Your task to perform on an android device: Find coffee shops on Maps Image 0: 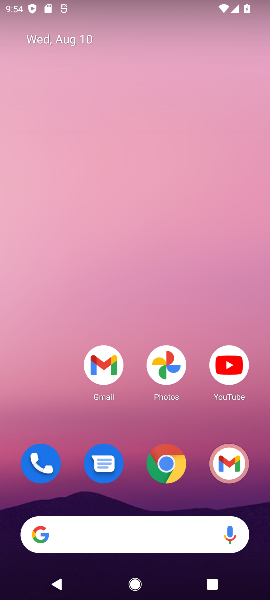
Step 0: drag from (11, 561) to (166, 60)
Your task to perform on an android device: Find coffee shops on Maps Image 1: 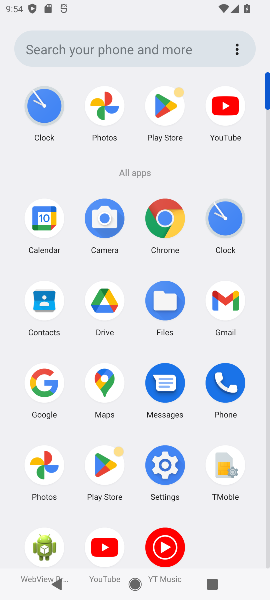
Step 1: click (113, 390)
Your task to perform on an android device: Find coffee shops on Maps Image 2: 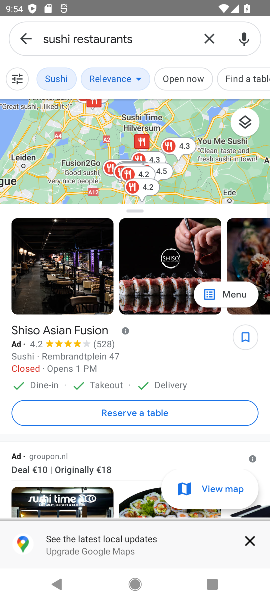
Step 2: click (25, 43)
Your task to perform on an android device: Find coffee shops on Maps Image 3: 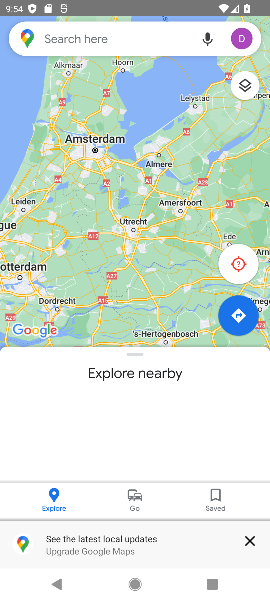
Step 3: click (72, 36)
Your task to perform on an android device: Find coffee shops on Maps Image 4: 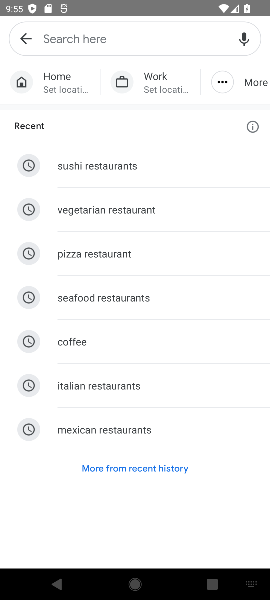
Step 4: type "coffee shops"
Your task to perform on an android device: Find coffee shops on Maps Image 5: 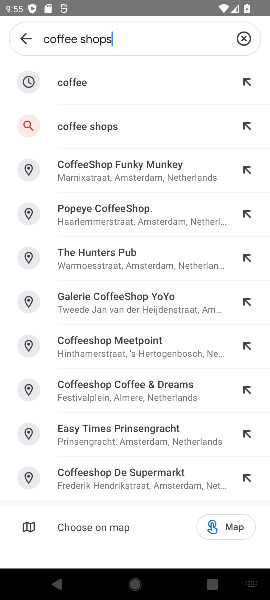
Step 5: click (127, 128)
Your task to perform on an android device: Find coffee shops on Maps Image 6: 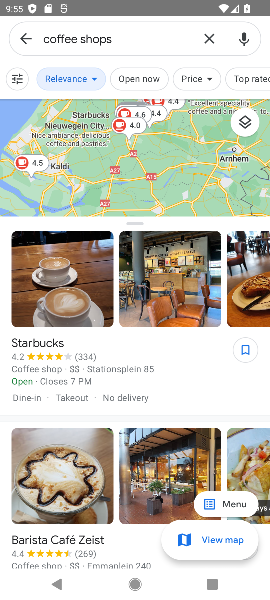
Step 6: task complete